Your task to perform on an android device: show emergency info Image 0: 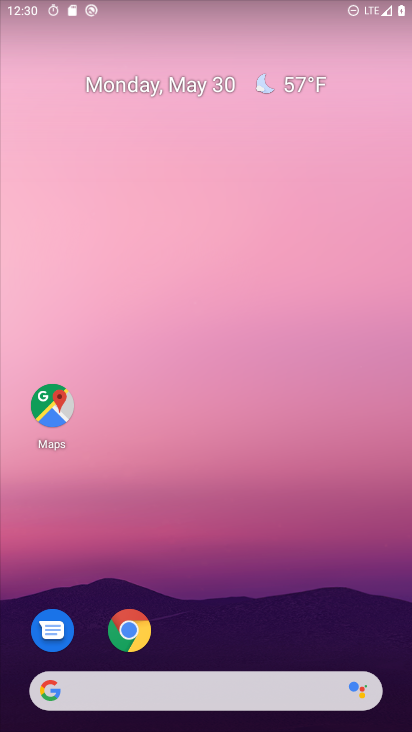
Step 0: drag from (247, 697) to (132, 74)
Your task to perform on an android device: show emergency info Image 1: 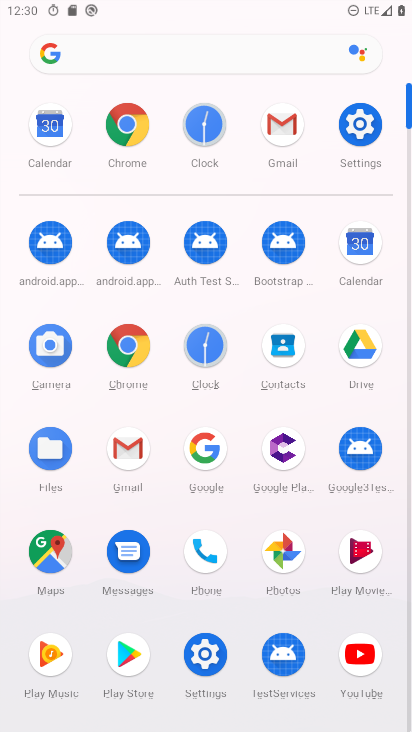
Step 1: click (354, 132)
Your task to perform on an android device: show emergency info Image 2: 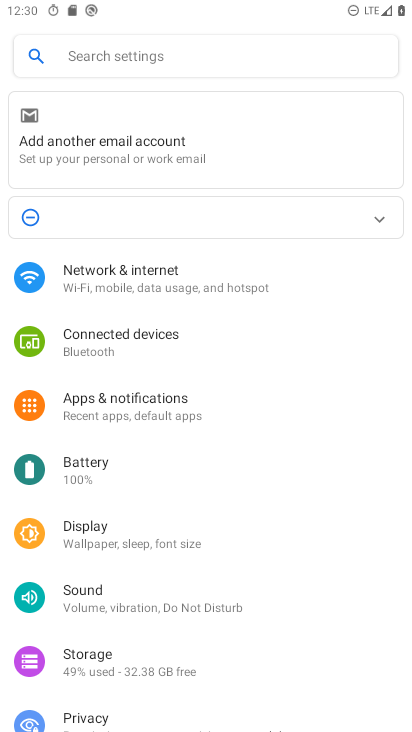
Step 2: click (103, 52)
Your task to perform on an android device: show emergency info Image 3: 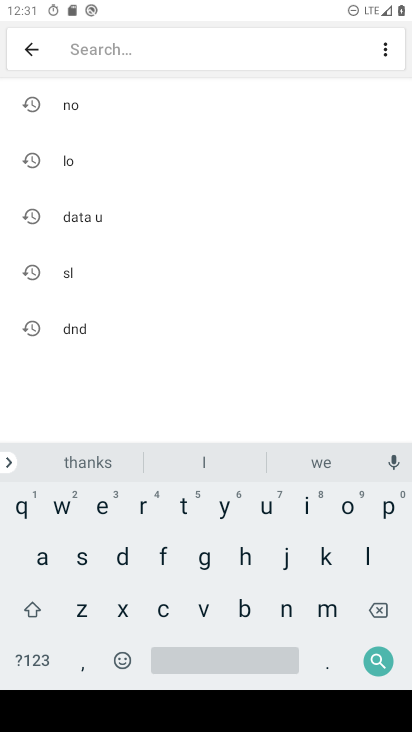
Step 3: click (97, 513)
Your task to perform on an android device: show emergency info Image 4: 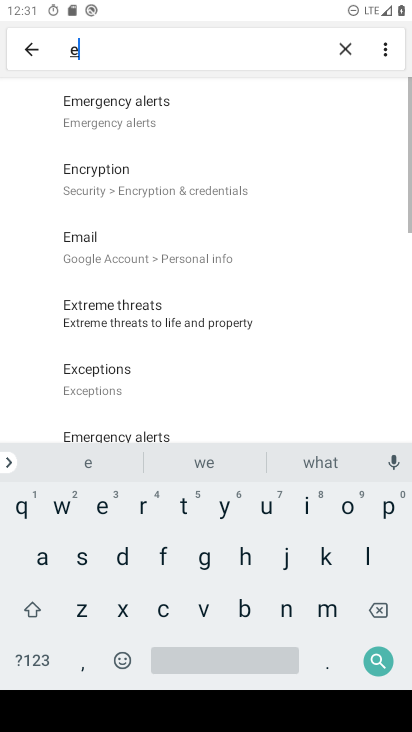
Step 4: click (325, 600)
Your task to perform on an android device: show emergency info Image 5: 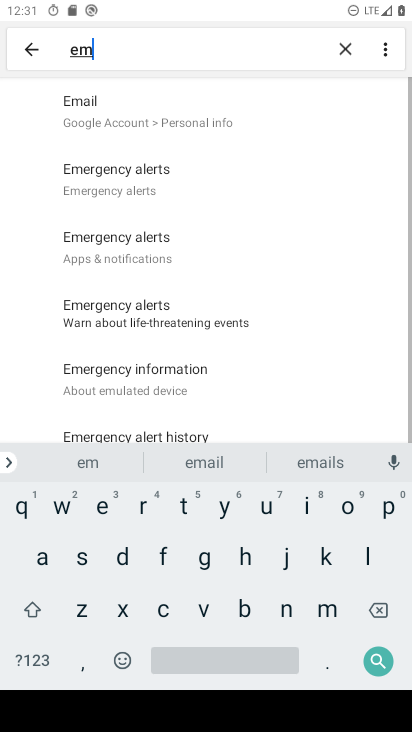
Step 5: click (98, 509)
Your task to perform on an android device: show emergency info Image 6: 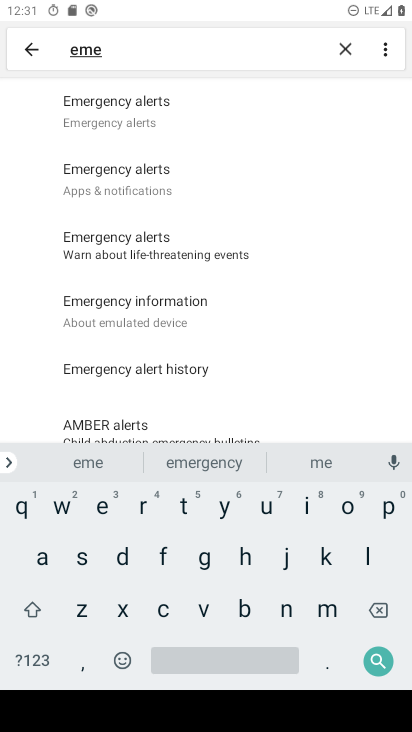
Step 6: click (134, 506)
Your task to perform on an android device: show emergency info Image 7: 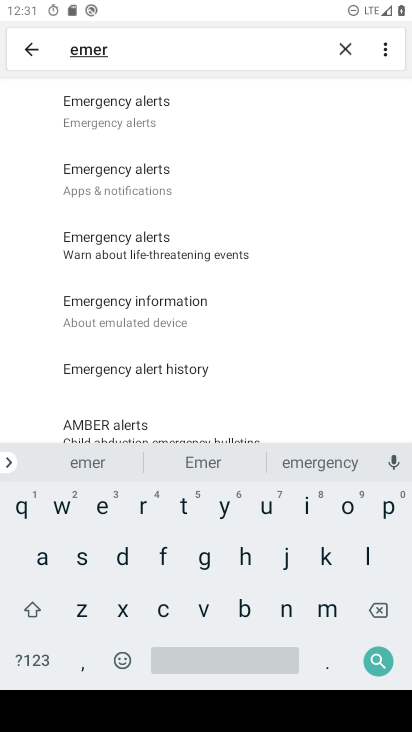
Step 7: click (309, 467)
Your task to perform on an android device: show emergency info Image 8: 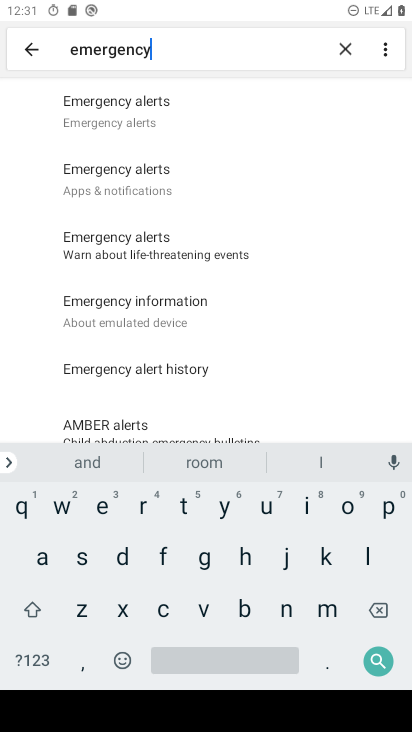
Step 8: click (309, 506)
Your task to perform on an android device: show emergency info Image 9: 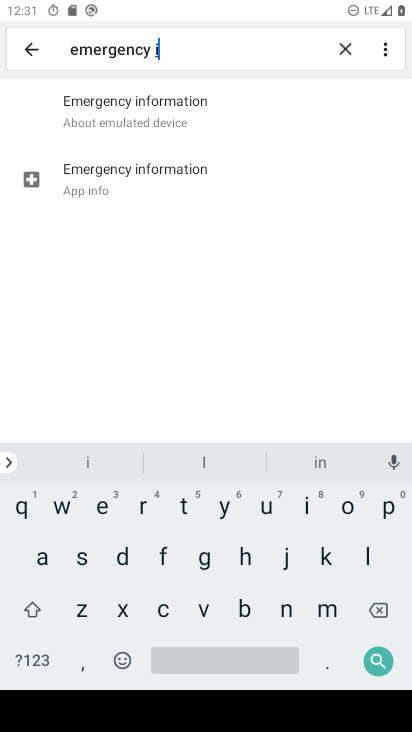
Step 9: click (190, 111)
Your task to perform on an android device: show emergency info Image 10: 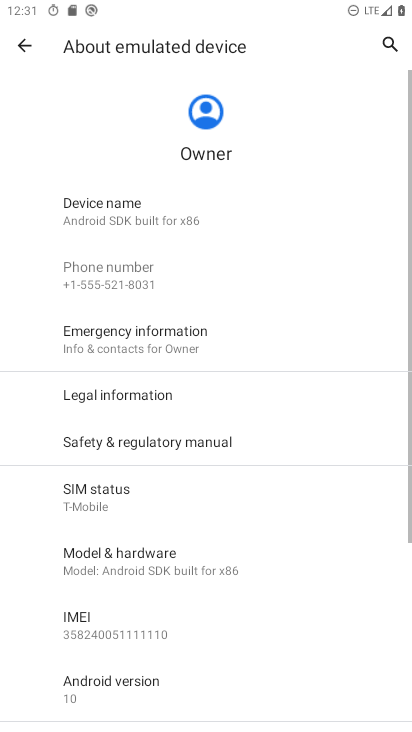
Step 10: click (150, 342)
Your task to perform on an android device: show emergency info Image 11: 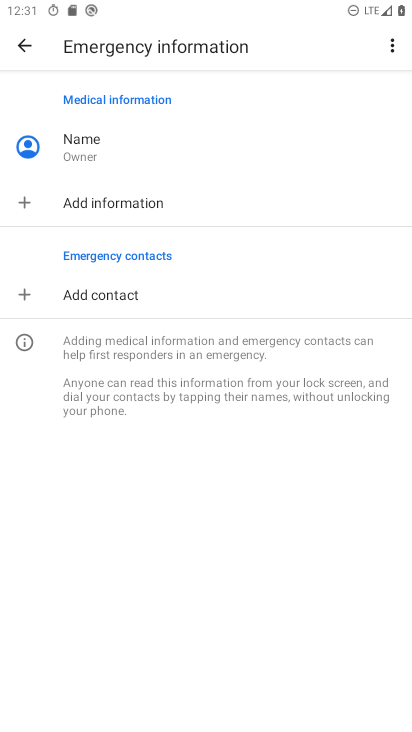
Step 11: task complete